Your task to perform on an android device: Open Google Maps Image 0: 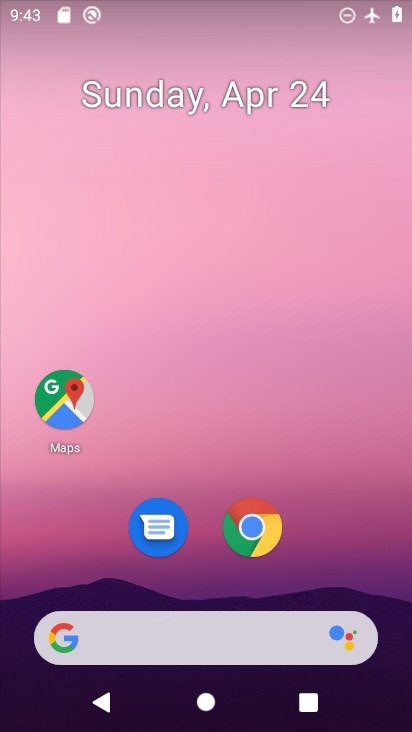
Step 0: drag from (392, 627) to (340, 38)
Your task to perform on an android device: Open Google Maps Image 1: 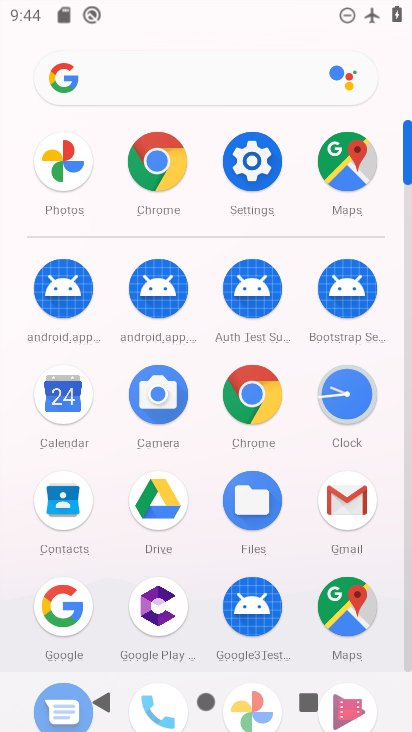
Step 1: click (329, 172)
Your task to perform on an android device: Open Google Maps Image 2: 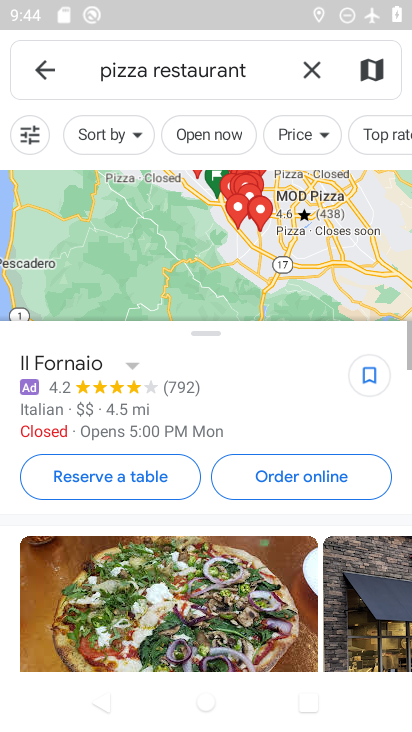
Step 2: click (306, 68)
Your task to perform on an android device: Open Google Maps Image 3: 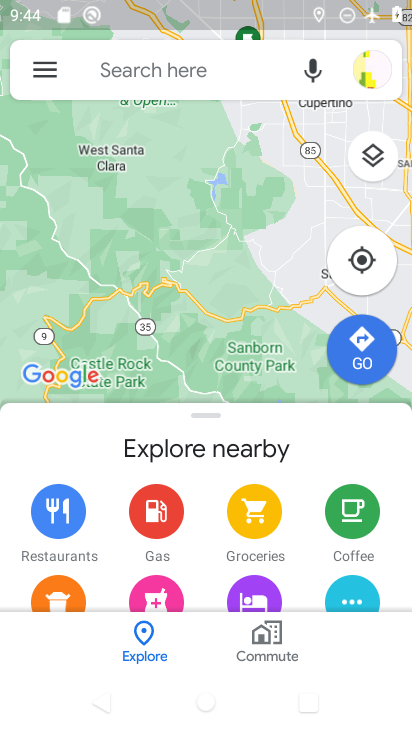
Step 3: task complete